Your task to perform on an android device: empty trash in the gmail app Image 0: 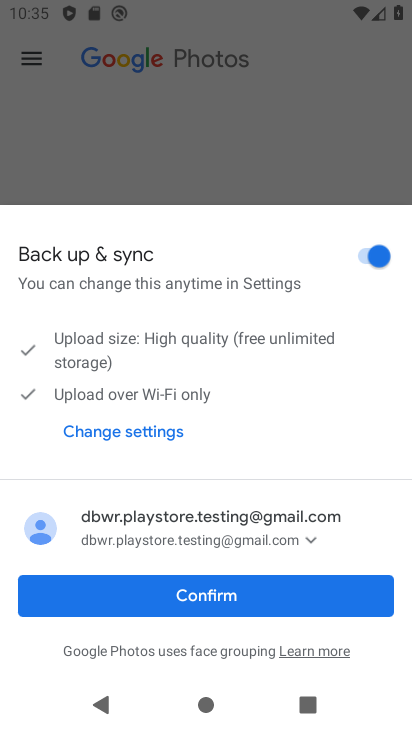
Step 0: press home button
Your task to perform on an android device: empty trash in the gmail app Image 1: 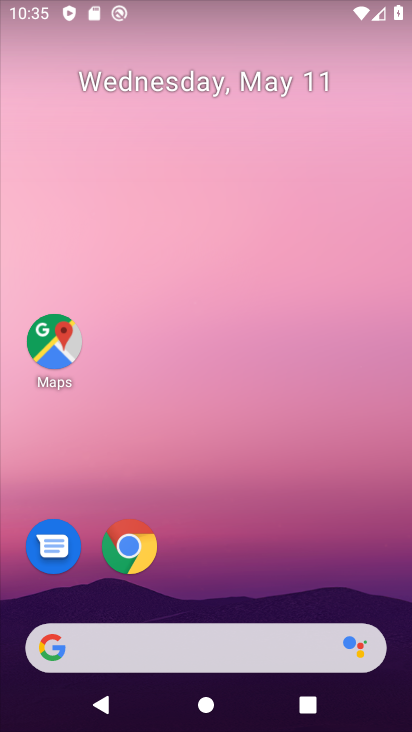
Step 1: drag from (186, 632) to (145, 70)
Your task to perform on an android device: empty trash in the gmail app Image 2: 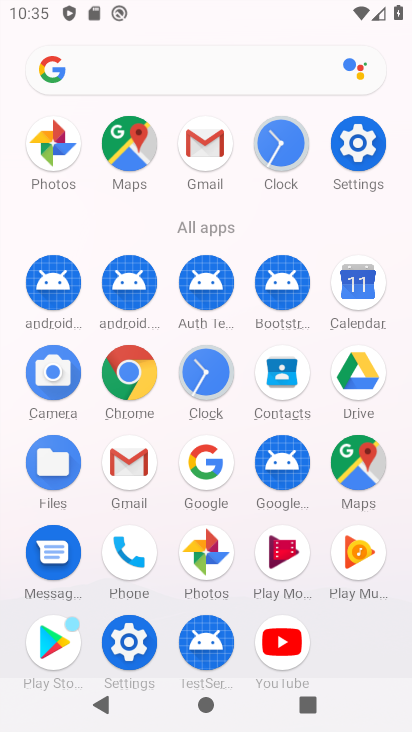
Step 2: click (135, 468)
Your task to perform on an android device: empty trash in the gmail app Image 3: 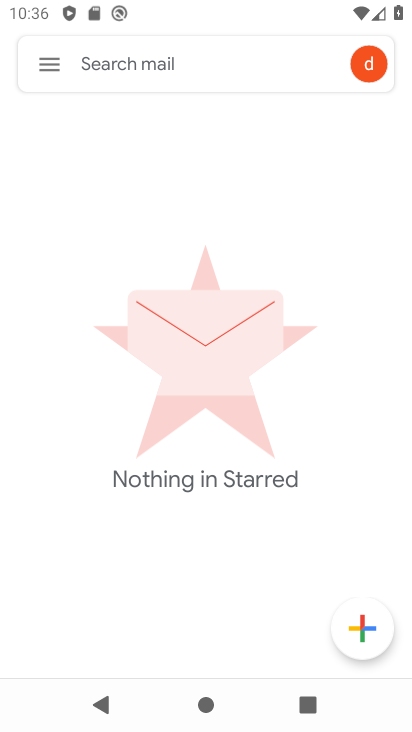
Step 3: click (36, 70)
Your task to perform on an android device: empty trash in the gmail app Image 4: 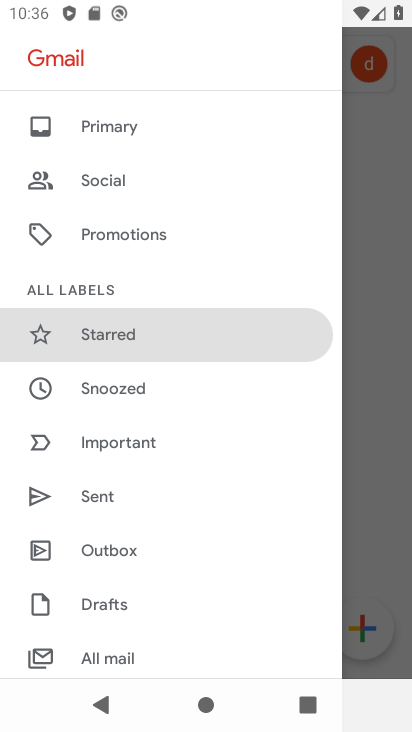
Step 4: drag from (156, 652) to (219, 136)
Your task to perform on an android device: empty trash in the gmail app Image 5: 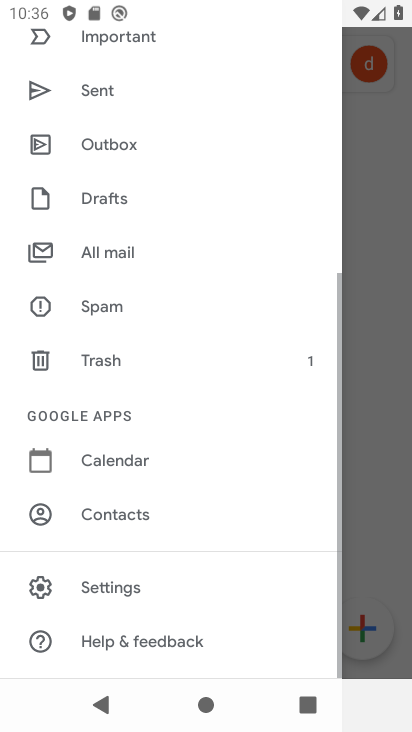
Step 5: click (97, 363)
Your task to perform on an android device: empty trash in the gmail app Image 6: 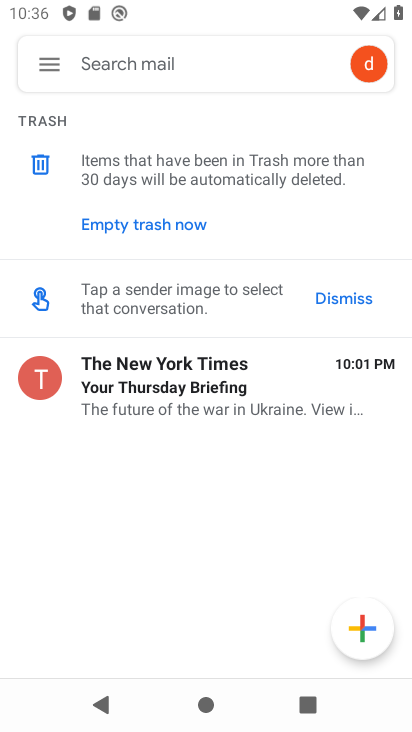
Step 6: click (159, 230)
Your task to perform on an android device: empty trash in the gmail app Image 7: 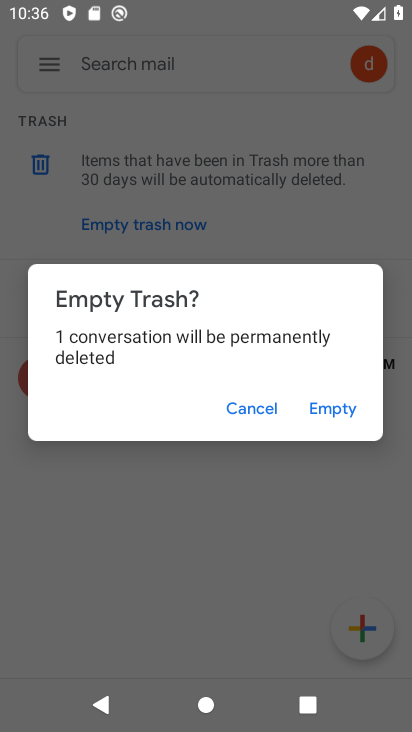
Step 7: task complete